Your task to perform on an android device: Go to wifi settings Image 0: 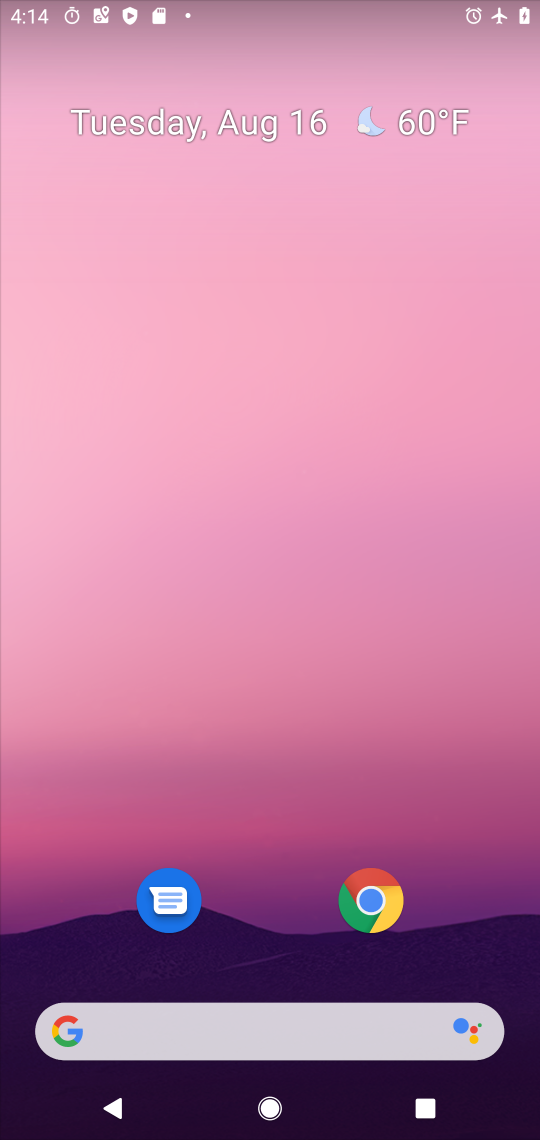
Step 0: drag from (284, 992) to (197, 149)
Your task to perform on an android device: Go to wifi settings Image 1: 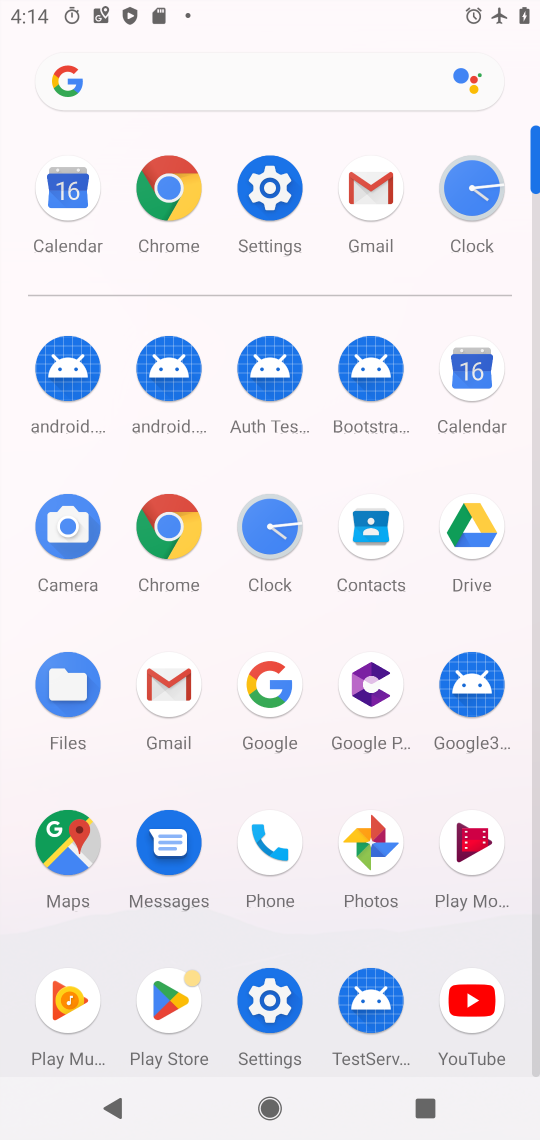
Step 1: click (255, 173)
Your task to perform on an android device: Go to wifi settings Image 2: 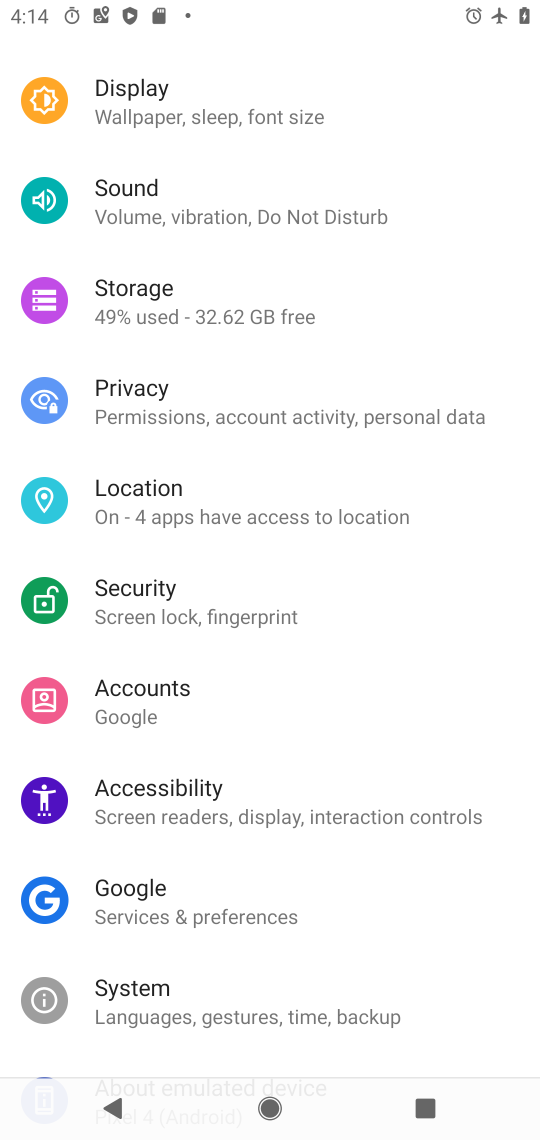
Step 2: drag from (154, 168) to (121, 816)
Your task to perform on an android device: Go to wifi settings Image 3: 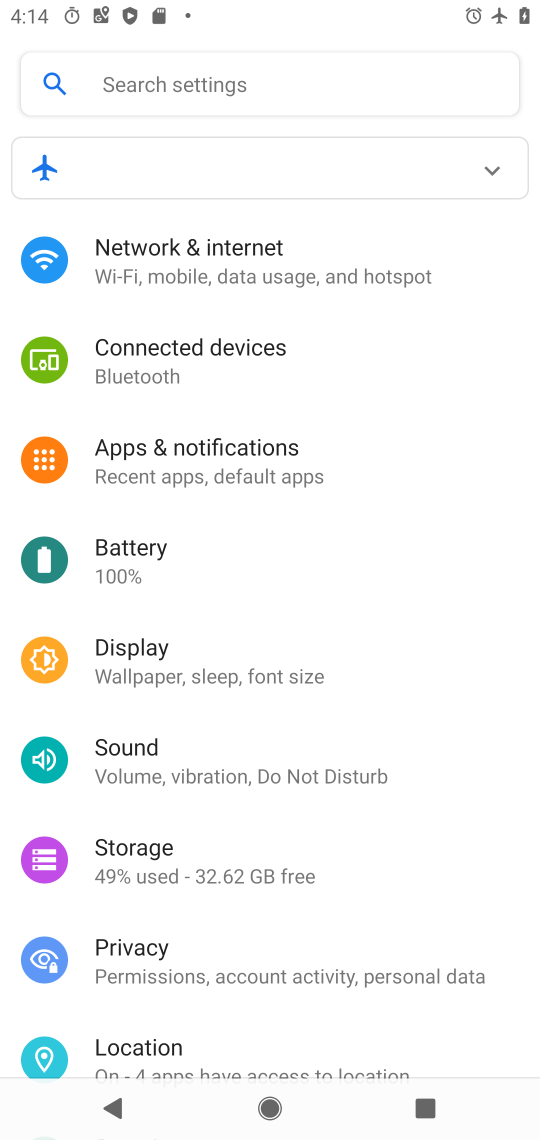
Step 3: click (195, 268)
Your task to perform on an android device: Go to wifi settings Image 4: 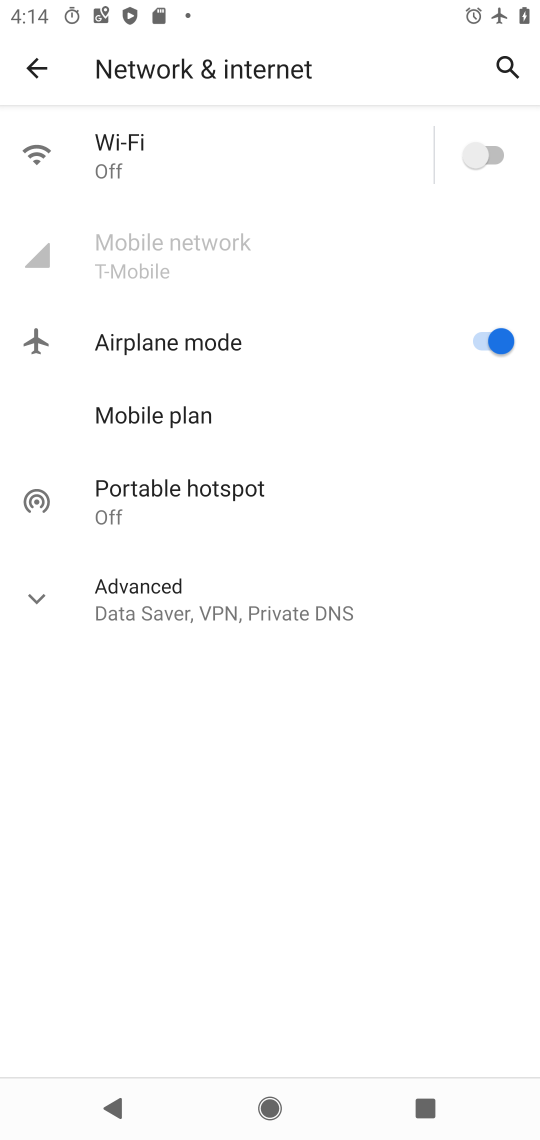
Step 4: click (115, 149)
Your task to perform on an android device: Go to wifi settings Image 5: 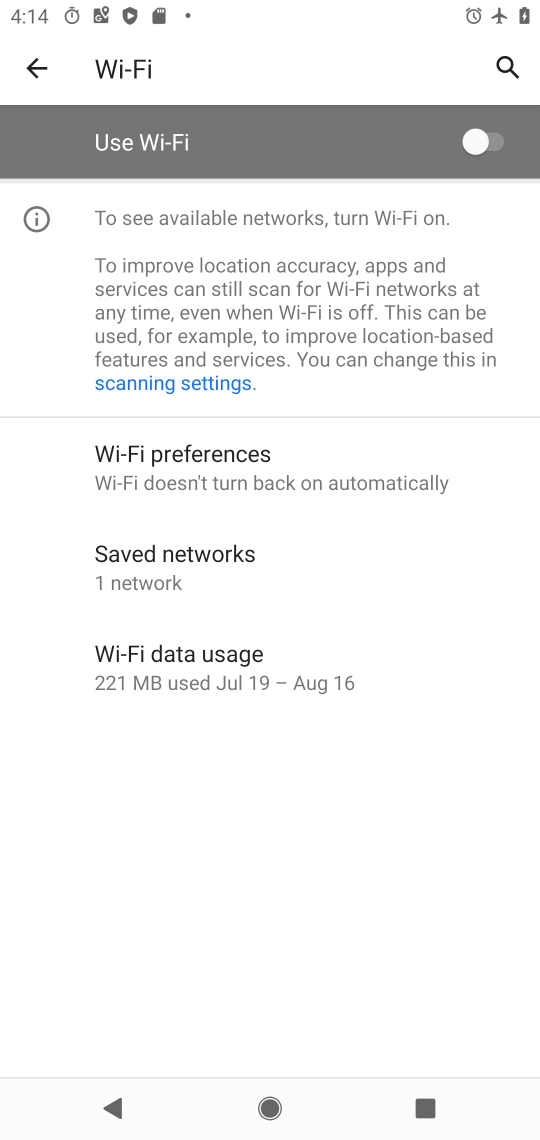
Step 5: task complete